Your task to perform on an android device: turn off notifications in google photos Image 0: 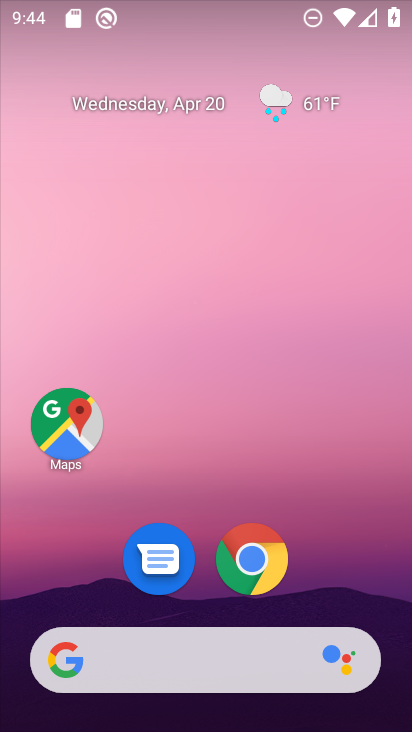
Step 0: drag from (395, 642) to (355, 188)
Your task to perform on an android device: turn off notifications in google photos Image 1: 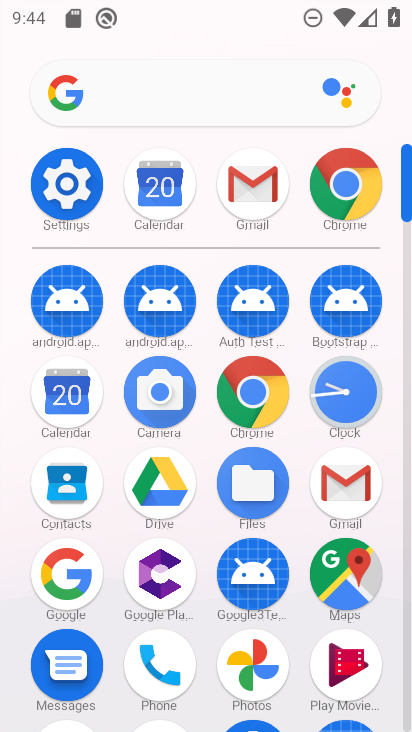
Step 1: click (408, 703)
Your task to perform on an android device: turn off notifications in google photos Image 2: 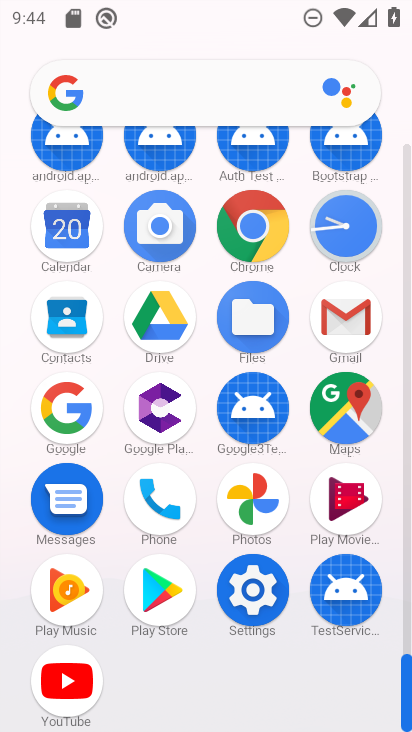
Step 2: click (254, 497)
Your task to perform on an android device: turn off notifications in google photos Image 3: 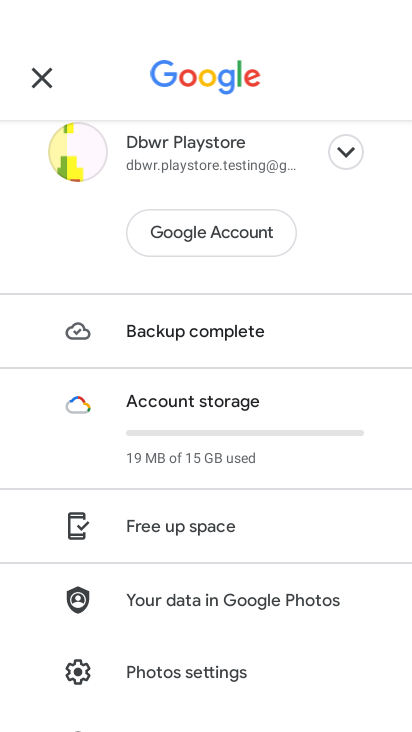
Step 3: click (162, 672)
Your task to perform on an android device: turn off notifications in google photos Image 4: 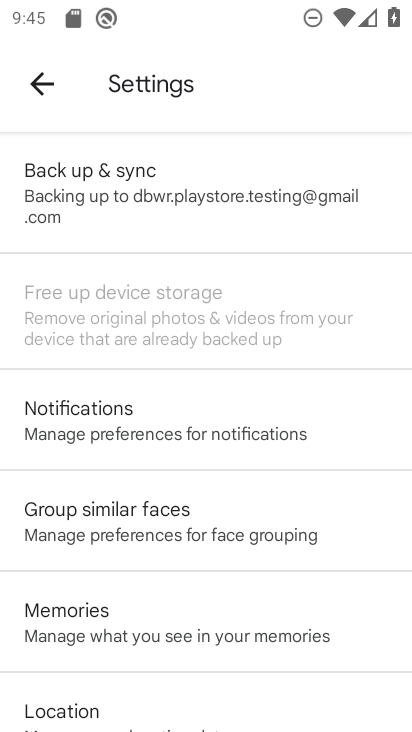
Step 4: click (87, 417)
Your task to perform on an android device: turn off notifications in google photos Image 5: 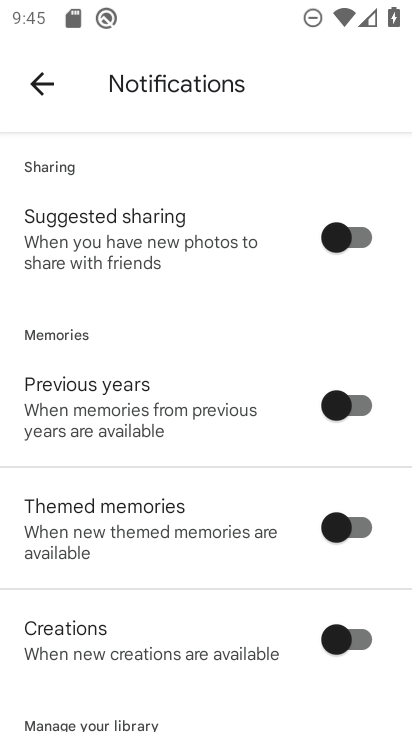
Step 5: drag from (193, 549) to (252, 252)
Your task to perform on an android device: turn off notifications in google photos Image 6: 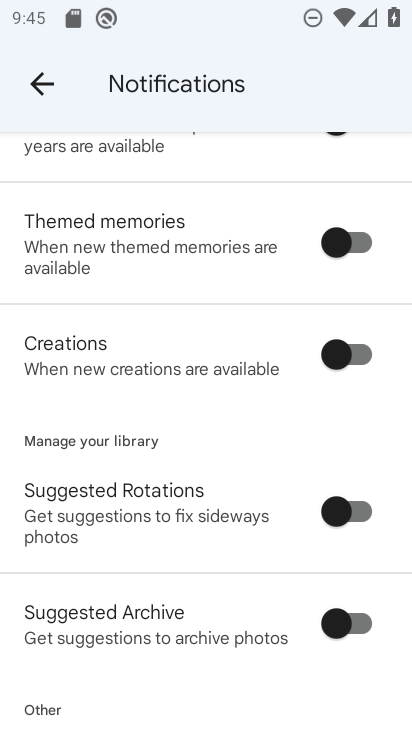
Step 6: drag from (203, 594) to (299, 211)
Your task to perform on an android device: turn off notifications in google photos Image 7: 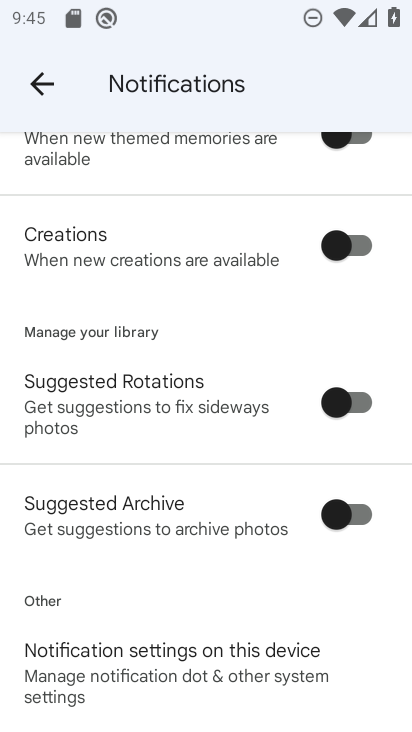
Step 7: click (99, 660)
Your task to perform on an android device: turn off notifications in google photos Image 8: 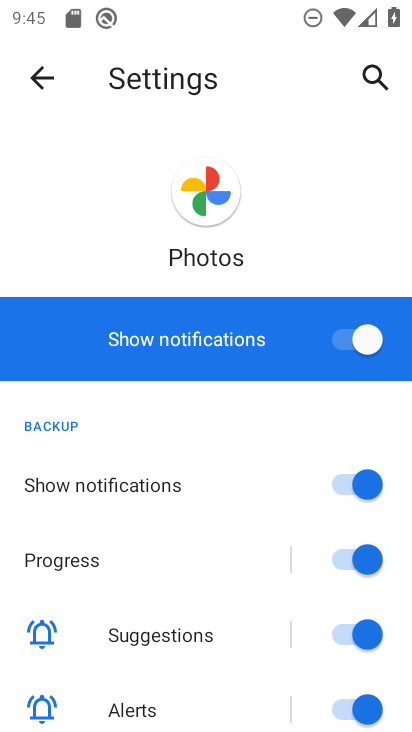
Step 8: click (338, 333)
Your task to perform on an android device: turn off notifications in google photos Image 9: 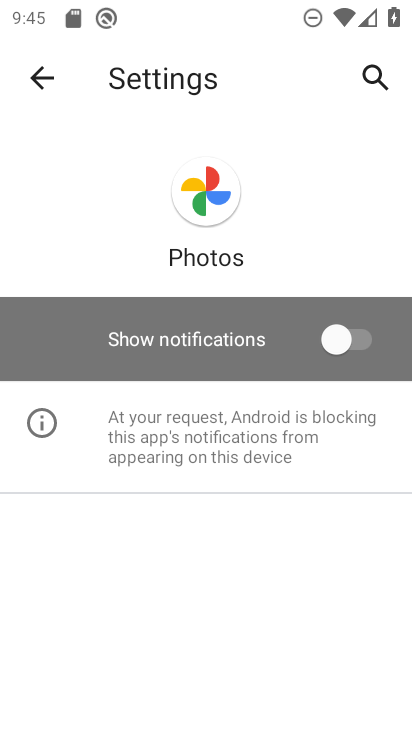
Step 9: task complete